Your task to perform on an android device: toggle show notifications on the lock screen Image 0: 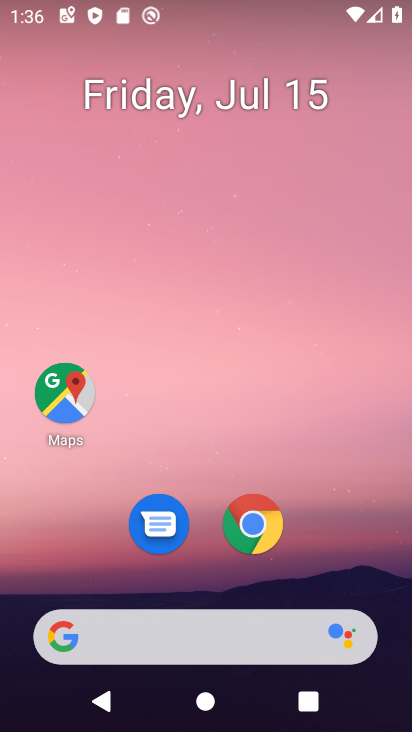
Step 0: drag from (219, 619) to (320, 90)
Your task to perform on an android device: toggle show notifications on the lock screen Image 1: 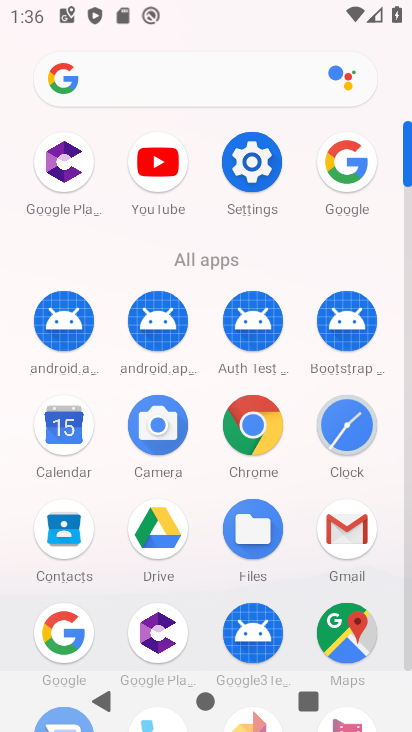
Step 1: click (266, 149)
Your task to perform on an android device: toggle show notifications on the lock screen Image 2: 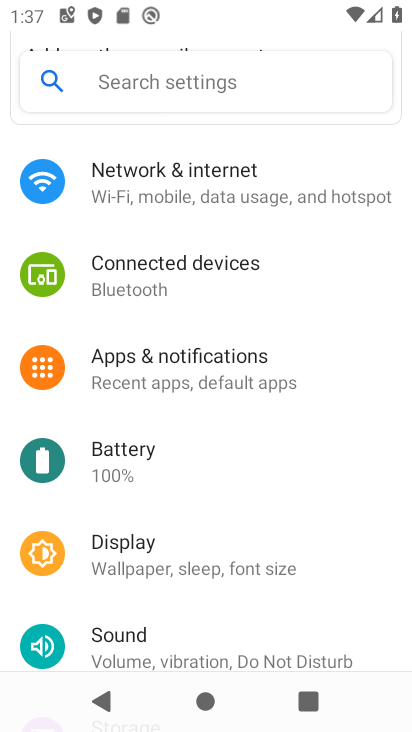
Step 2: click (208, 363)
Your task to perform on an android device: toggle show notifications on the lock screen Image 3: 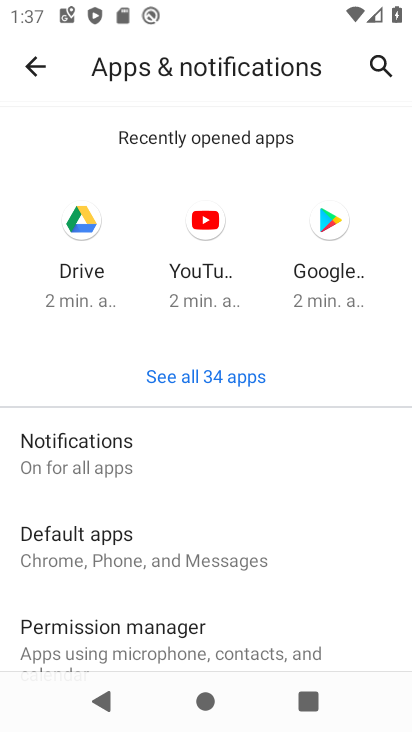
Step 3: click (120, 465)
Your task to perform on an android device: toggle show notifications on the lock screen Image 4: 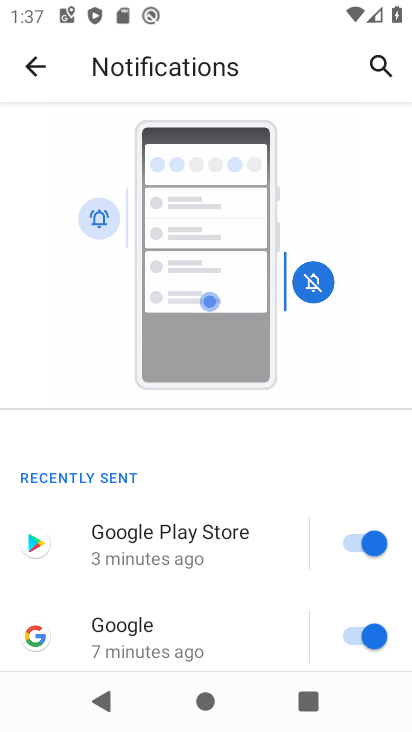
Step 4: drag from (243, 608) to (397, 53)
Your task to perform on an android device: toggle show notifications on the lock screen Image 5: 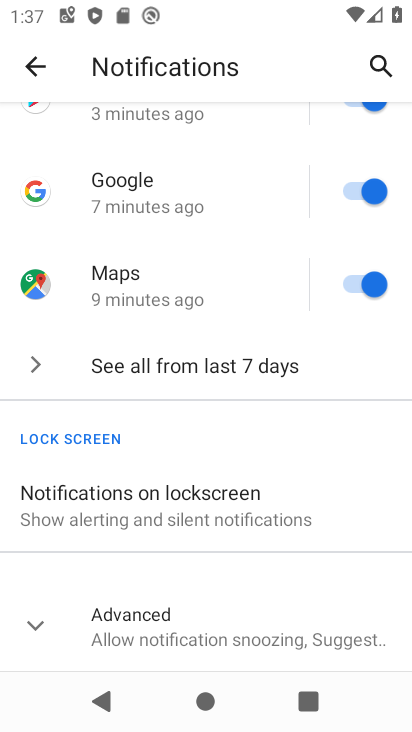
Step 5: click (193, 510)
Your task to perform on an android device: toggle show notifications on the lock screen Image 6: 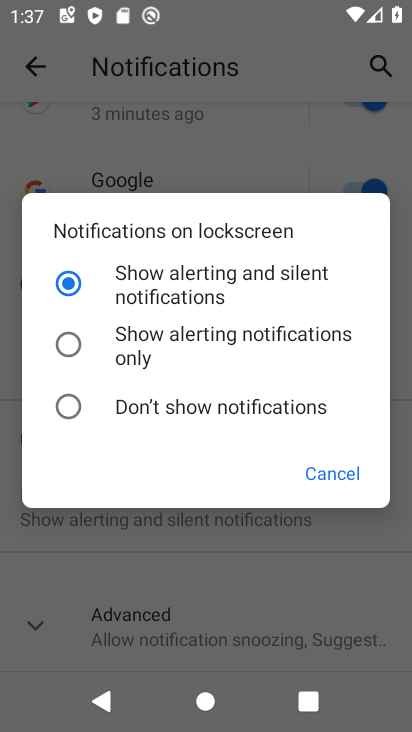
Step 6: click (67, 411)
Your task to perform on an android device: toggle show notifications on the lock screen Image 7: 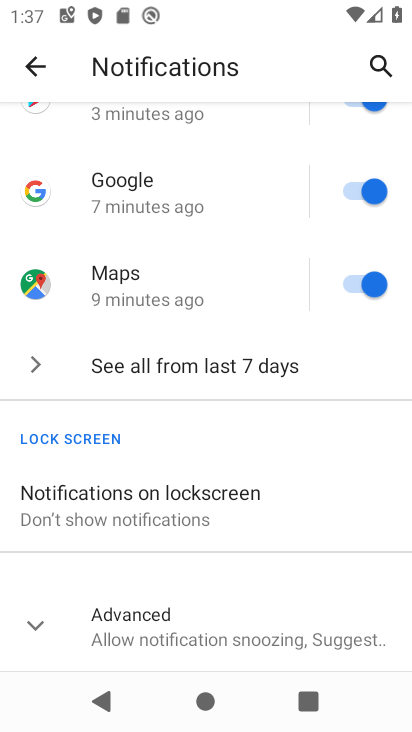
Step 7: task complete